Your task to perform on an android device: star an email in the gmail app Image 0: 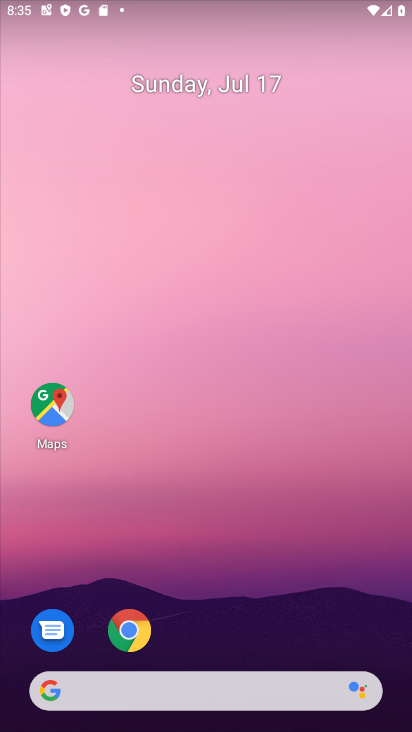
Step 0: click (190, 152)
Your task to perform on an android device: star an email in the gmail app Image 1: 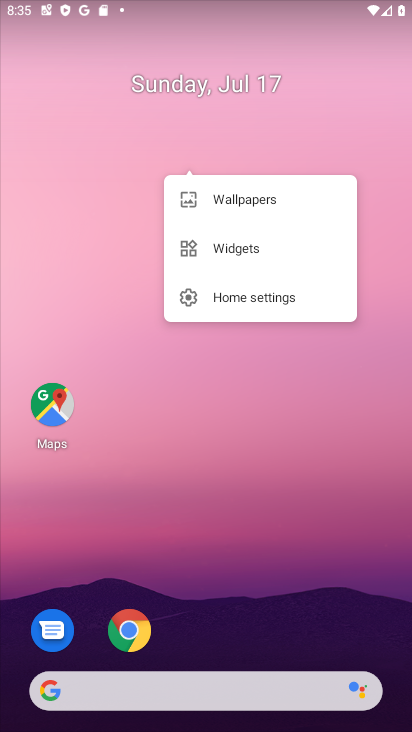
Step 1: click (233, 593)
Your task to perform on an android device: star an email in the gmail app Image 2: 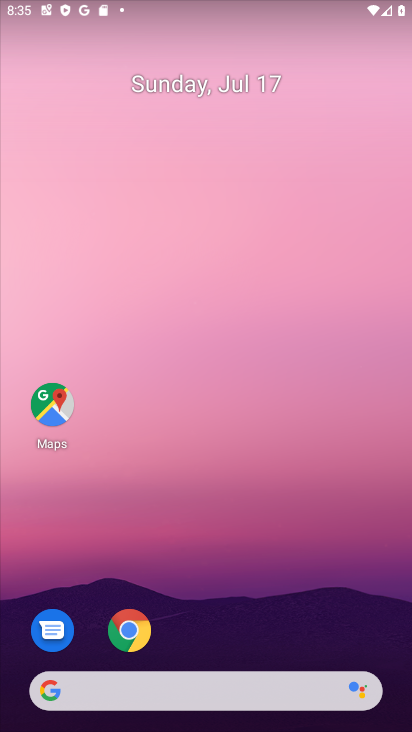
Step 2: click (200, 623)
Your task to perform on an android device: star an email in the gmail app Image 3: 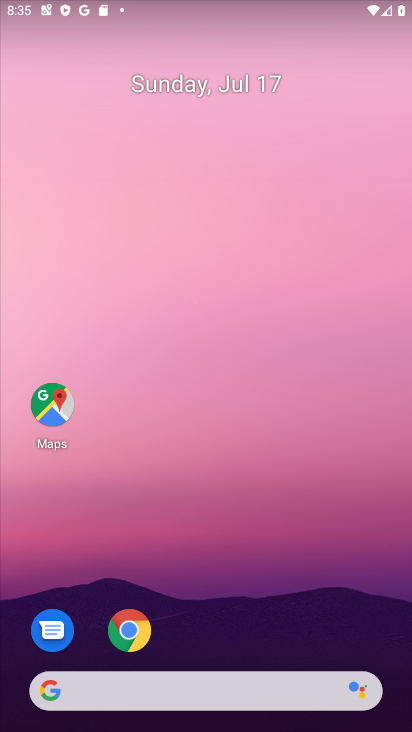
Step 3: drag from (200, 623) to (125, 28)
Your task to perform on an android device: star an email in the gmail app Image 4: 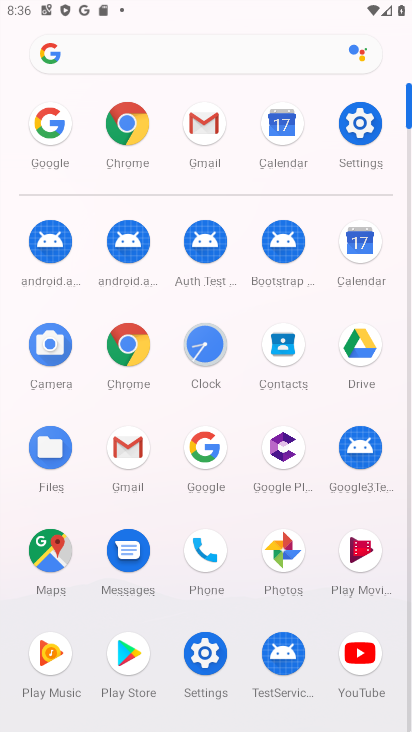
Step 4: click (190, 117)
Your task to perform on an android device: star an email in the gmail app Image 5: 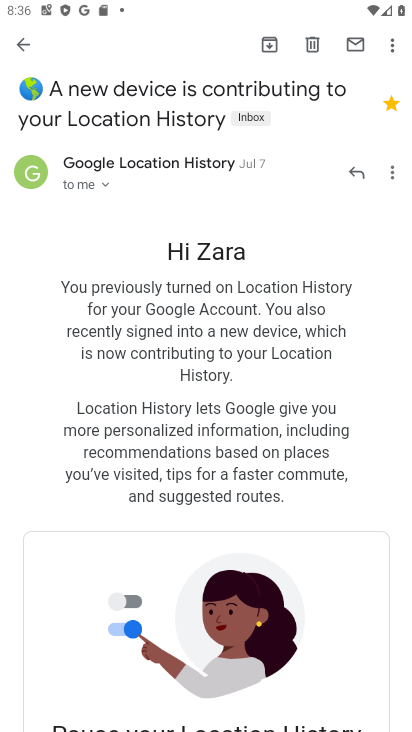
Step 5: click (204, 128)
Your task to perform on an android device: star an email in the gmail app Image 6: 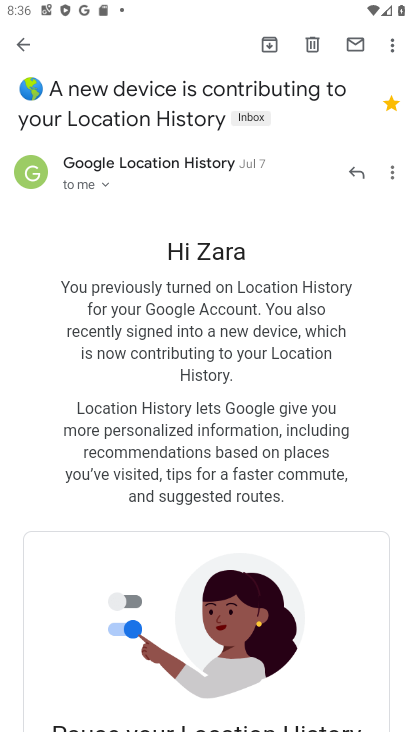
Step 6: click (25, 49)
Your task to perform on an android device: star an email in the gmail app Image 7: 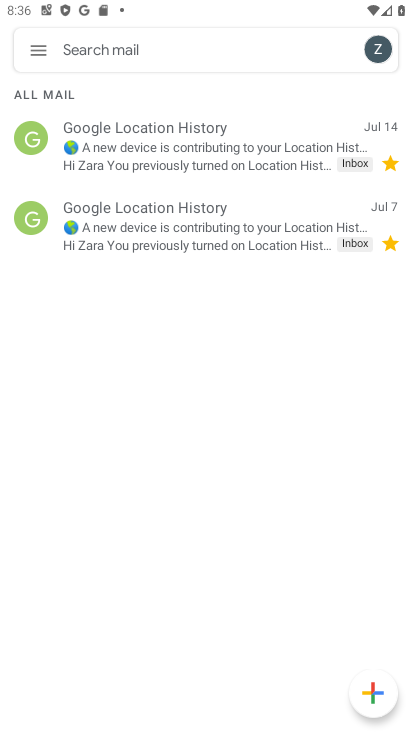
Step 7: task complete